Your task to perform on an android device: toggle airplane mode Image 0: 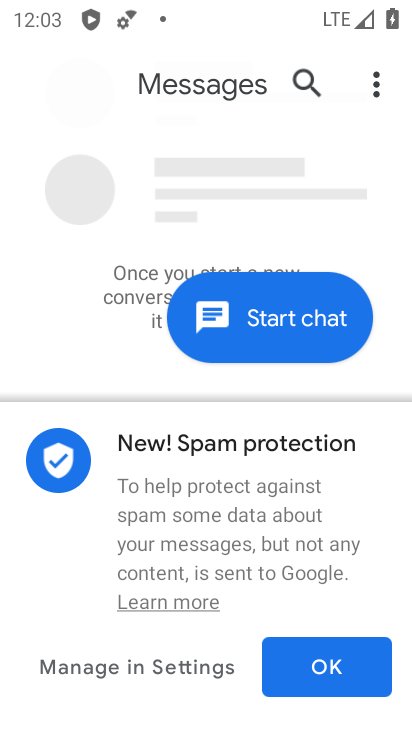
Step 0: press home button
Your task to perform on an android device: toggle airplane mode Image 1: 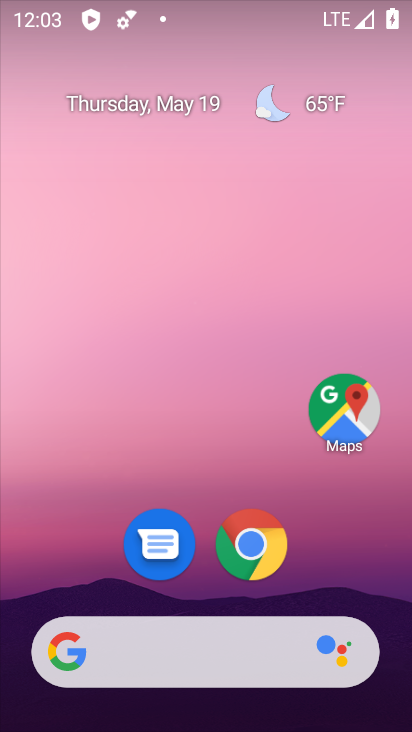
Step 1: drag from (376, 585) to (361, 226)
Your task to perform on an android device: toggle airplane mode Image 2: 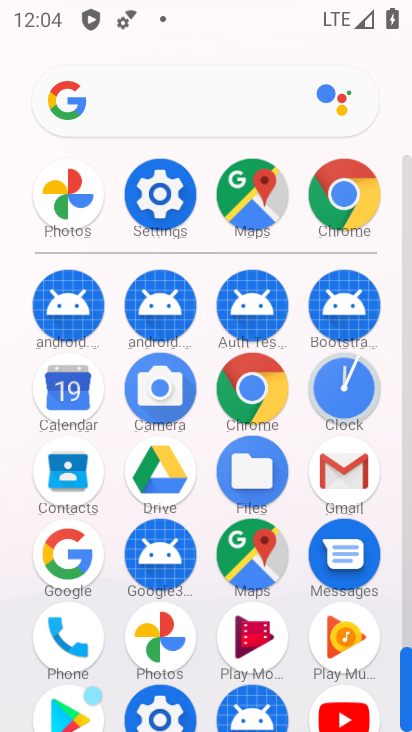
Step 2: click (169, 222)
Your task to perform on an android device: toggle airplane mode Image 3: 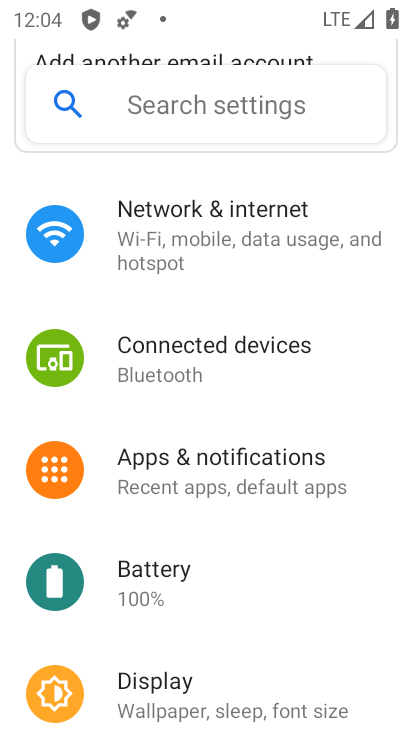
Step 3: drag from (335, 580) to (333, 394)
Your task to perform on an android device: toggle airplane mode Image 4: 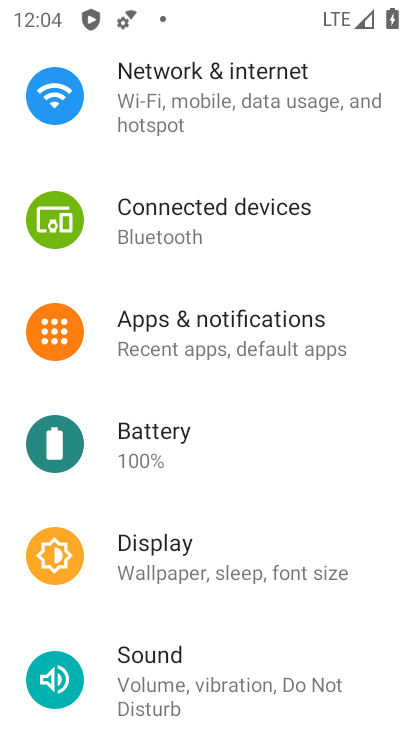
Step 4: drag from (366, 656) to (353, 473)
Your task to perform on an android device: toggle airplane mode Image 5: 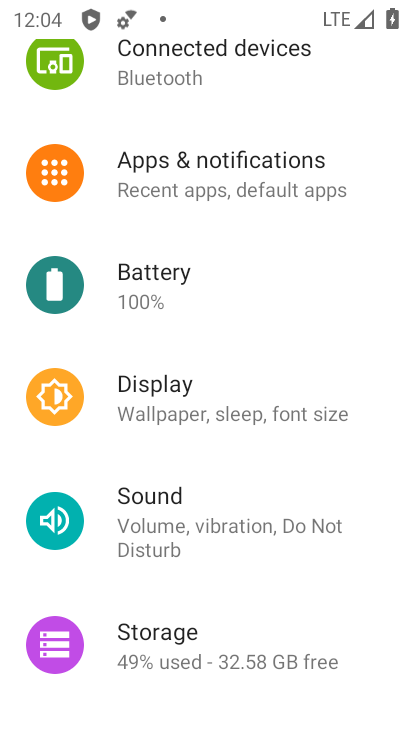
Step 5: drag from (360, 610) to (365, 486)
Your task to perform on an android device: toggle airplane mode Image 6: 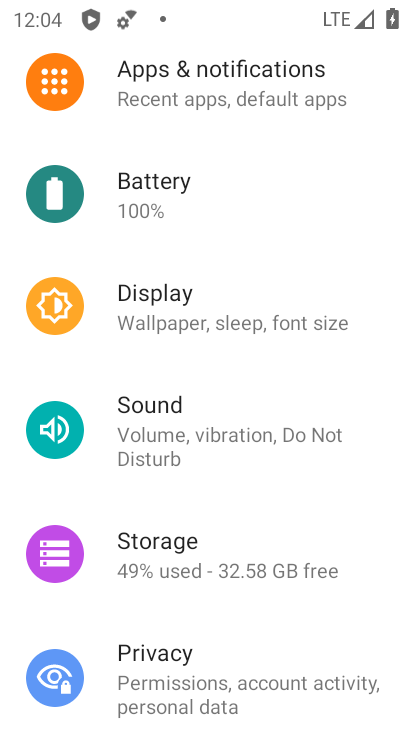
Step 6: drag from (358, 639) to (360, 467)
Your task to perform on an android device: toggle airplane mode Image 7: 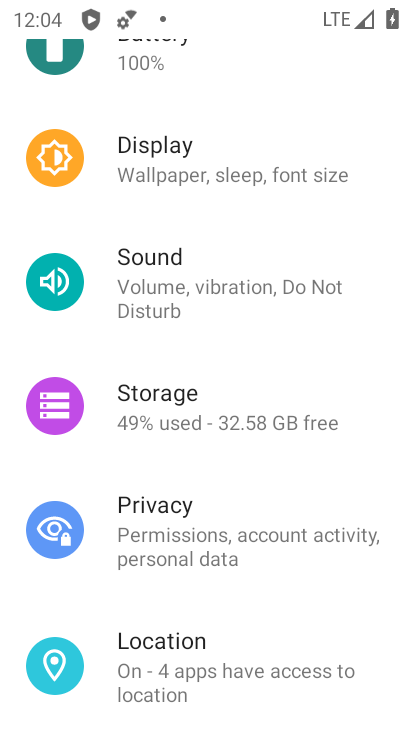
Step 7: drag from (344, 618) to (352, 486)
Your task to perform on an android device: toggle airplane mode Image 8: 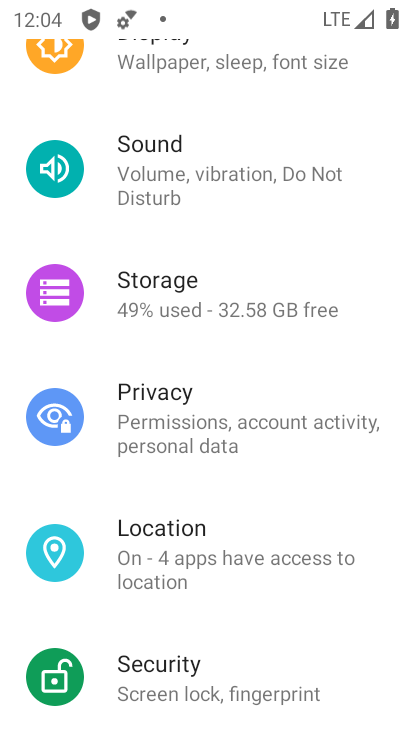
Step 8: drag from (350, 645) to (348, 485)
Your task to perform on an android device: toggle airplane mode Image 9: 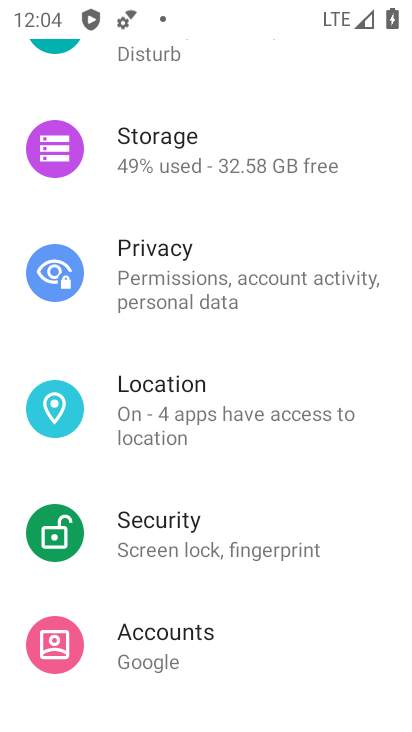
Step 9: drag from (355, 658) to (362, 509)
Your task to perform on an android device: toggle airplane mode Image 10: 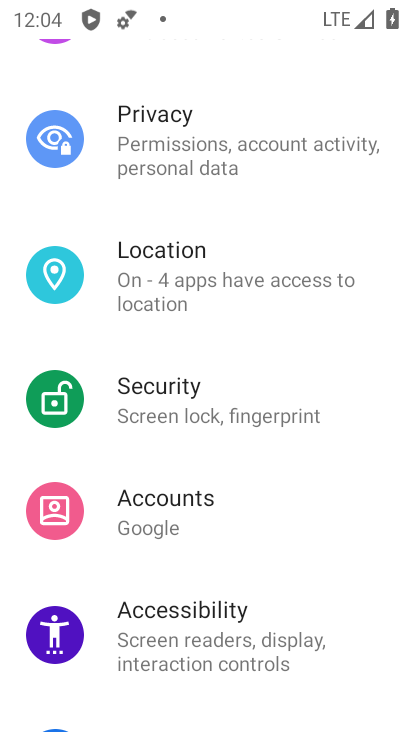
Step 10: drag from (360, 345) to (341, 562)
Your task to perform on an android device: toggle airplane mode Image 11: 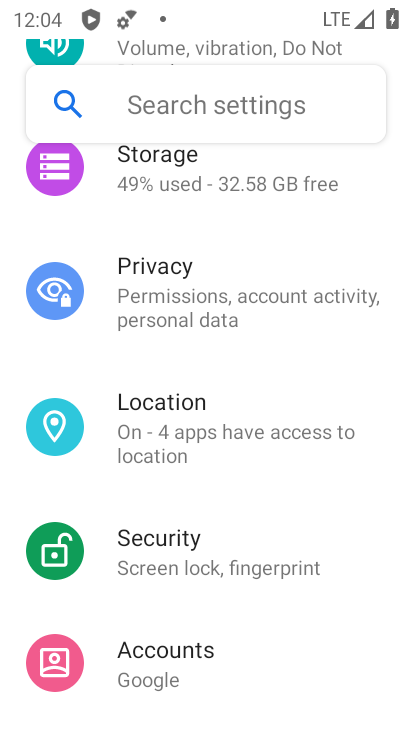
Step 11: drag from (369, 244) to (358, 427)
Your task to perform on an android device: toggle airplane mode Image 12: 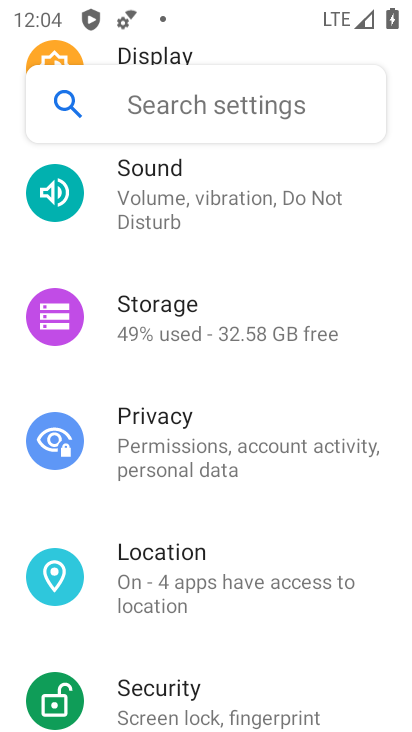
Step 12: drag from (348, 245) to (347, 437)
Your task to perform on an android device: toggle airplane mode Image 13: 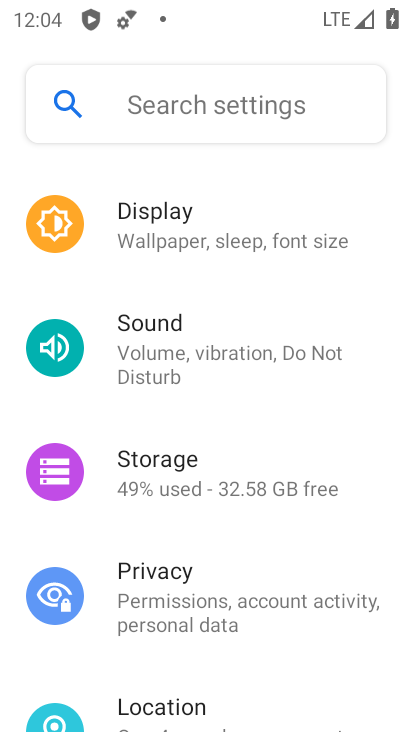
Step 13: drag from (359, 212) to (347, 392)
Your task to perform on an android device: toggle airplane mode Image 14: 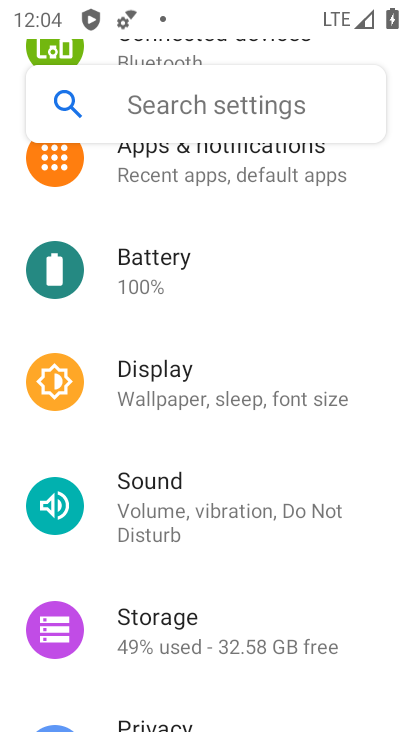
Step 14: drag from (344, 234) to (346, 388)
Your task to perform on an android device: toggle airplane mode Image 15: 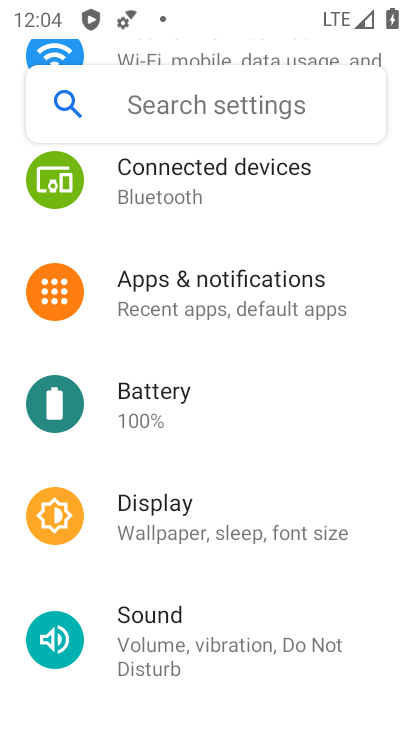
Step 15: drag from (342, 216) to (325, 375)
Your task to perform on an android device: toggle airplane mode Image 16: 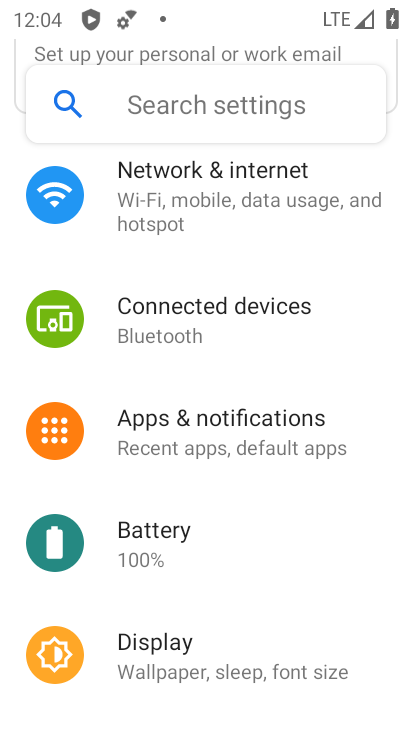
Step 16: drag from (338, 169) to (327, 362)
Your task to perform on an android device: toggle airplane mode Image 17: 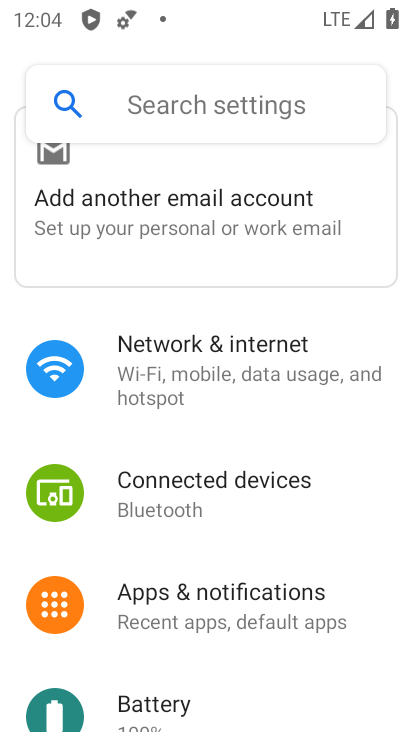
Step 17: click (250, 374)
Your task to perform on an android device: toggle airplane mode Image 18: 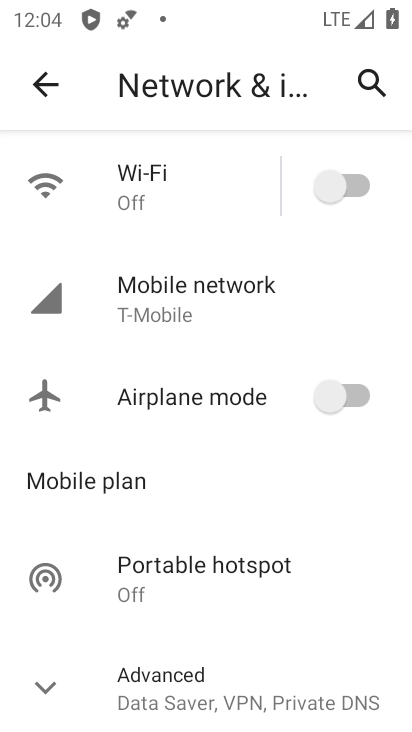
Step 18: click (373, 399)
Your task to perform on an android device: toggle airplane mode Image 19: 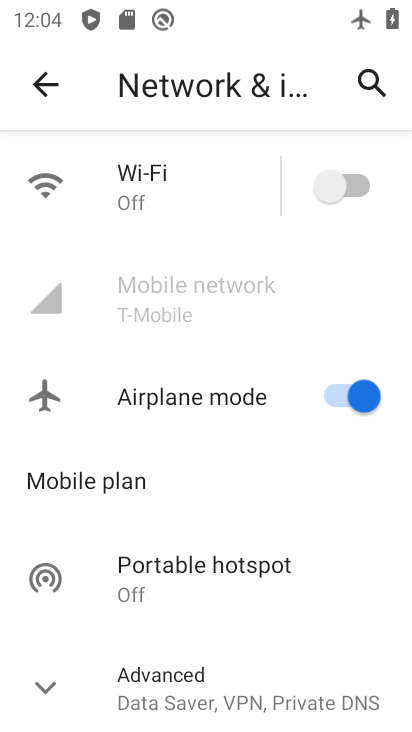
Step 19: task complete